Your task to perform on an android device: Go to Wikipedia Image 0: 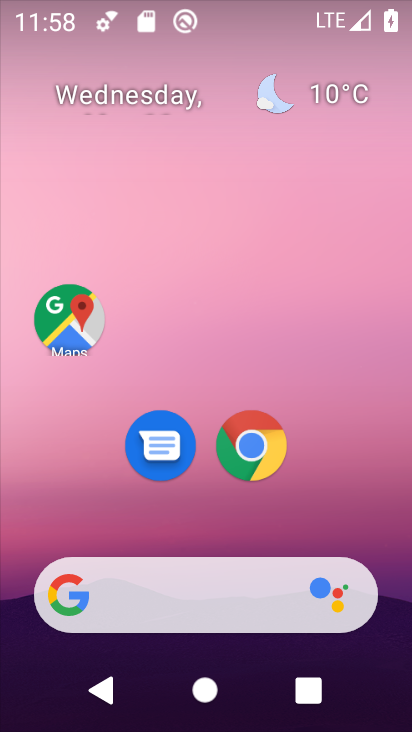
Step 0: click (245, 447)
Your task to perform on an android device: Go to Wikipedia Image 1: 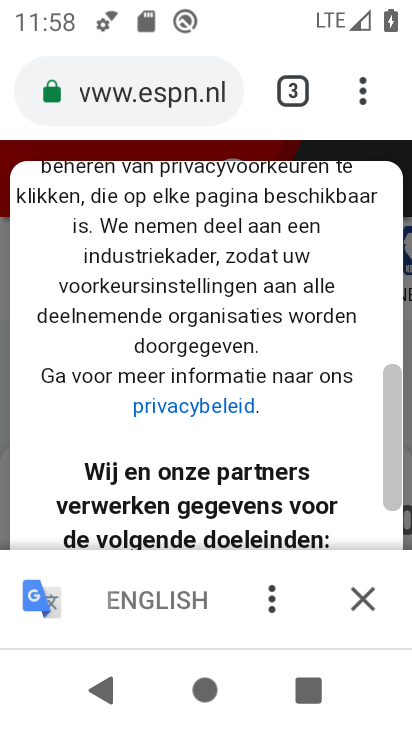
Step 1: click (300, 88)
Your task to perform on an android device: Go to Wikipedia Image 2: 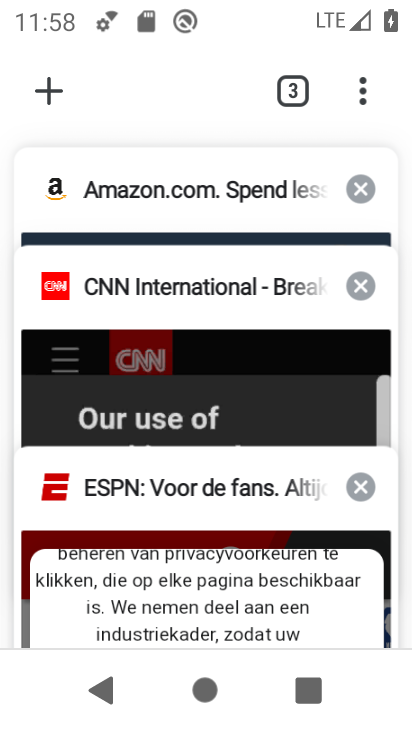
Step 2: click (52, 92)
Your task to perform on an android device: Go to Wikipedia Image 3: 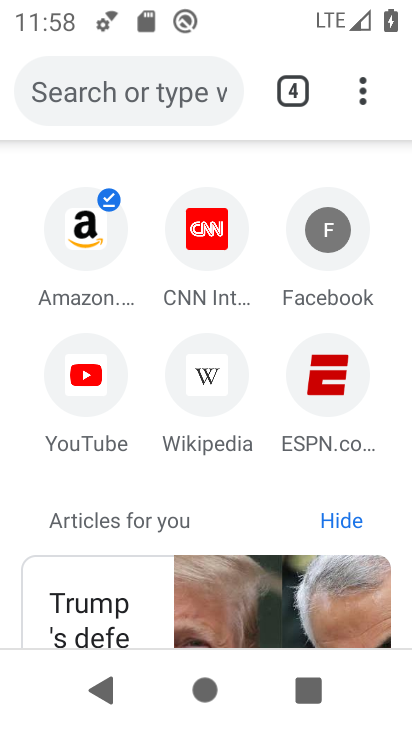
Step 3: click (175, 375)
Your task to perform on an android device: Go to Wikipedia Image 4: 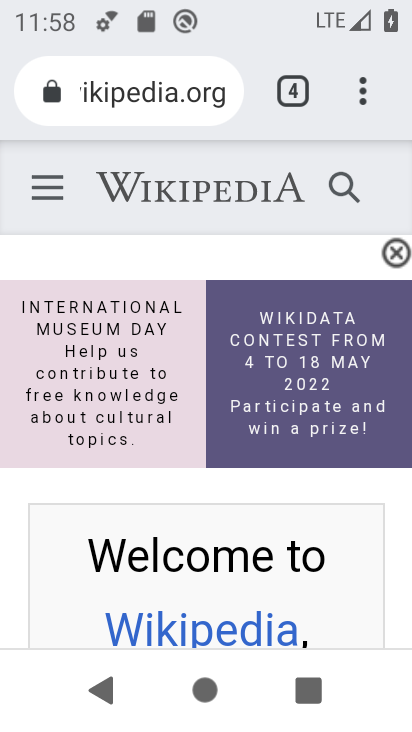
Step 4: task complete